Your task to perform on an android device: star an email in the gmail app Image 0: 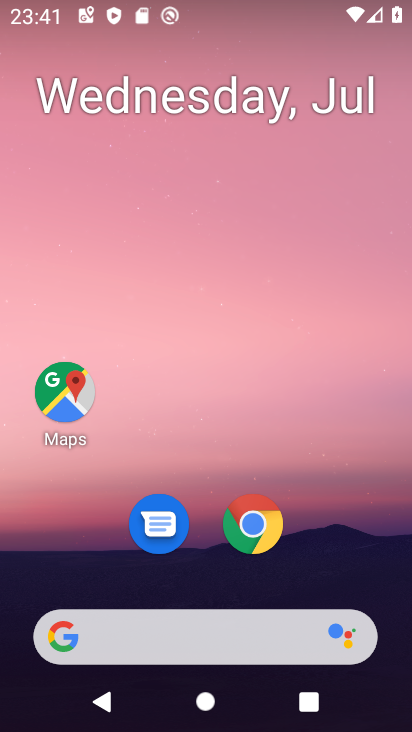
Step 0: press home button
Your task to perform on an android device: star an email in the gmail app Image 1: 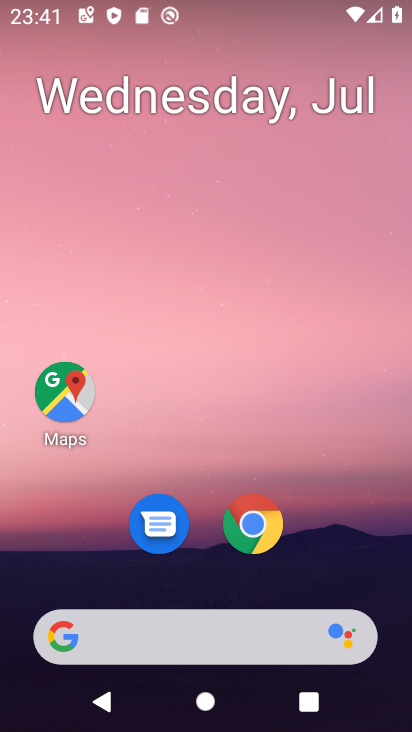
Step 1: drag from (234, 636) to (315, 99)
Your task to perform on an android device: star an email in the gmail app Image 2: 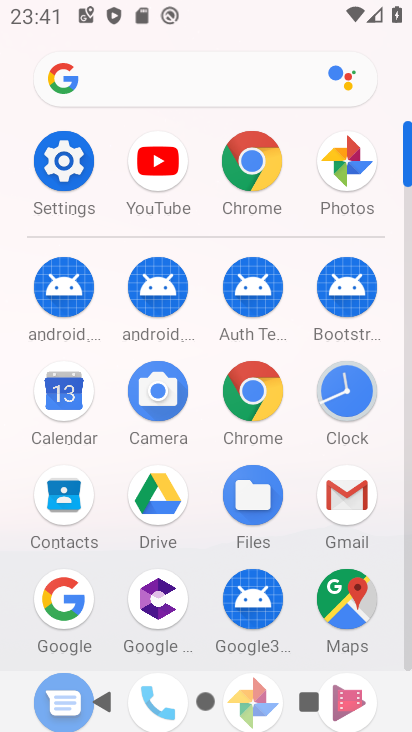
Step 2: click (343, 500)
Your task to perform on an android device: star an email in the gmail app Image 3: 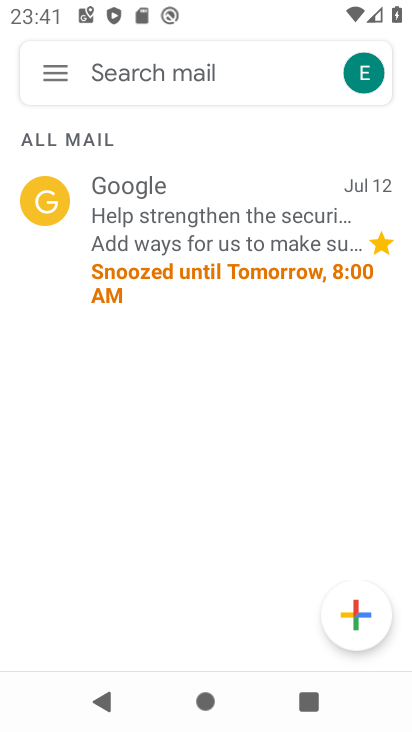
Step 3: task complete